Your task to perform on an android device: toggle notification dots Image 0: 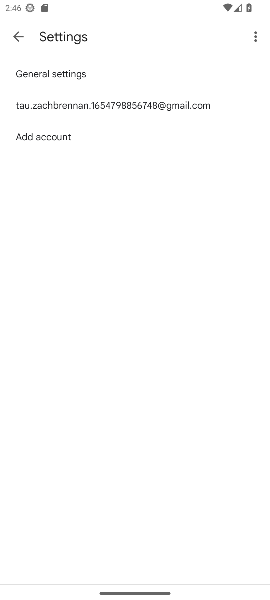
Step 0: press home button
Your task to perform on an android device: toggle notification dots Image 1: 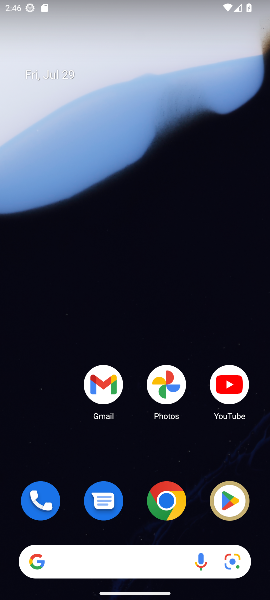
Step 1: drag from (140, 531) to (138, 56)
Your task to perform on an android device: toggle notification dots Image 2: 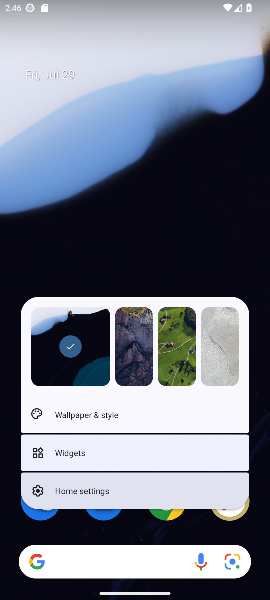
Step 2: click (138, 56)
Your task to perform on an android device: toggle notification dots Image 3: 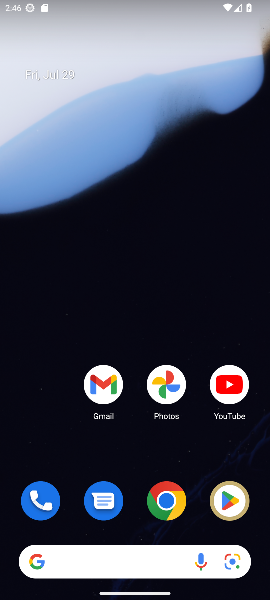
Step 3: drag from (136, 536) to (213, 2)
Your task to perform on an android device: toggle notification dots Image 4: 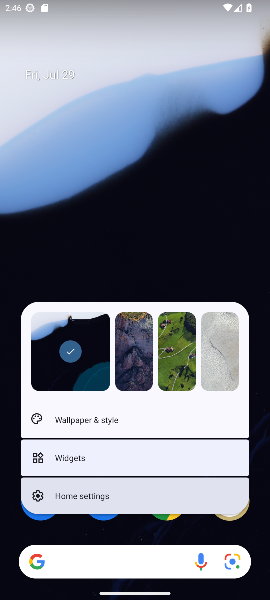
Step 4: click (181, 188)
Your task to perform on an android device: toggle notification dots Image 5: 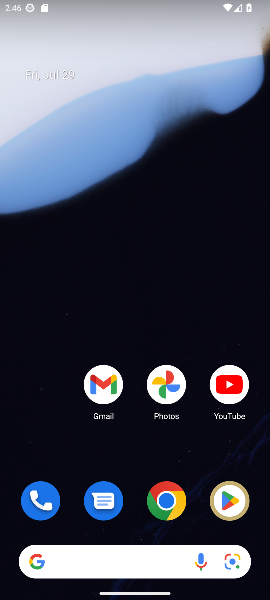
Step 5: drag from (129, 530) to (116, 158)
Your task to perform on an android device: toggle notification dots Image 6: 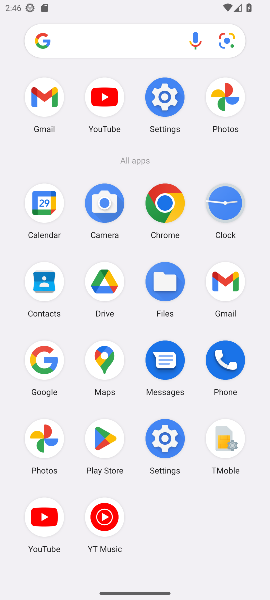
Step 6: click (175, 438)
Your task to perform on an android device: toggle notification dots Image 7: 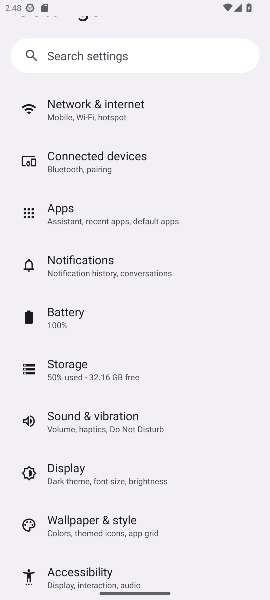
Step 7: click (98, 288)
Your task to perform on an android device: toggle notification dots Image 8: 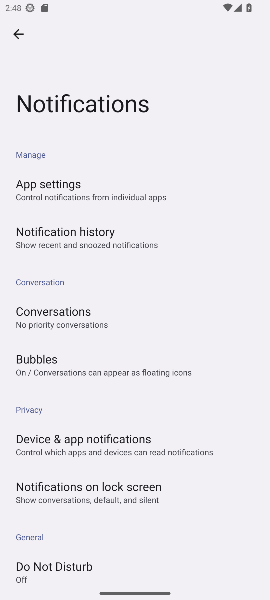
Step 8: drag from (140, 548) to (122, 149)
Your task to perform on an android device: toggle notification dots Image 9: 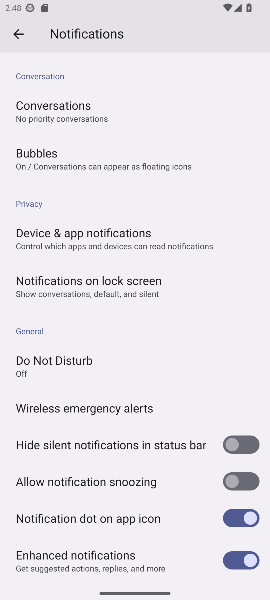
Step 9: click (236, 554)
Your task to perform on an android device: toggle notification dots Image 10: 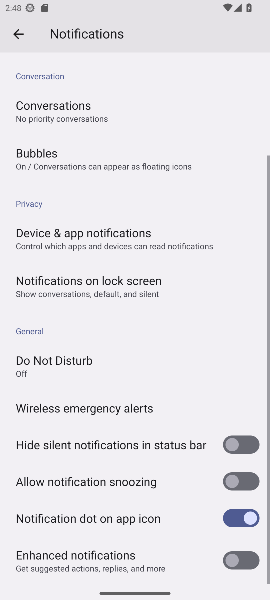
Step 10: task complete